Your task to perform on an android device: open the mobile data screen to see how much data has been used Image 0: 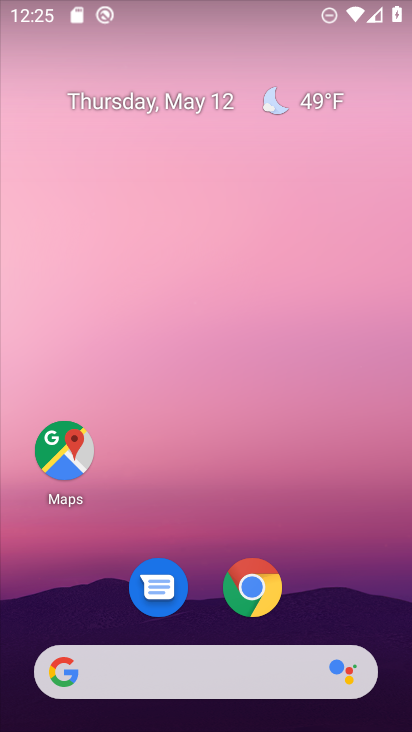
Step 0: drag from (316, 619) to (324, 296)
Your task to perform on an android device: open the mobile data screen to see how much data has been used Image 1: 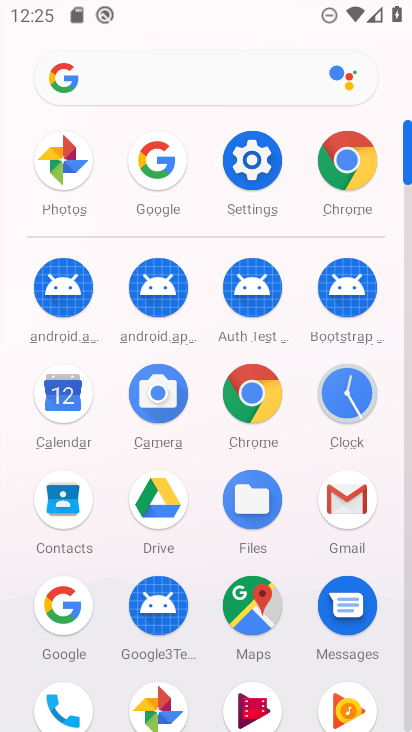
Step 1: click (244, 157)
Your task to perform on an android device: open the mobile data screen to see how much data has been used Image 2: 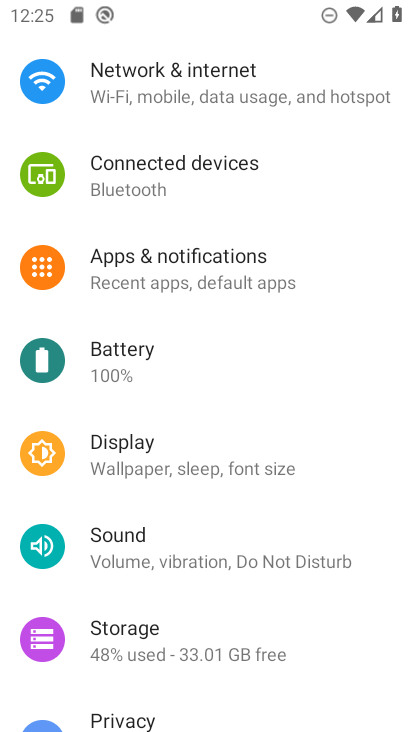
Step 2: click (180, 92)
Your task to perform on an android device: open the mobile data screen to see how much data has been used Image 3: 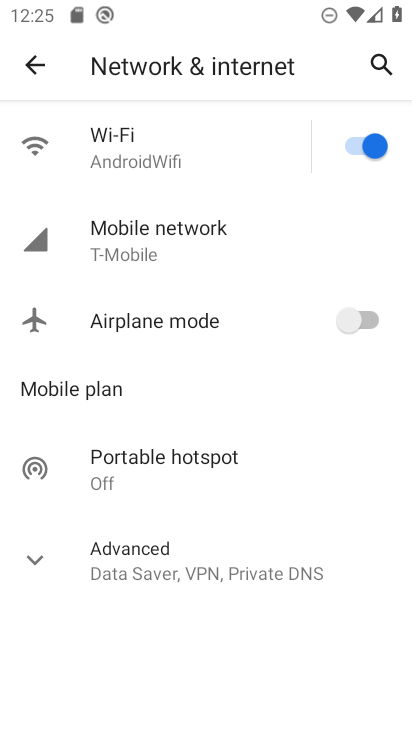
Step 3: click (139, 252)
Your task to perform on an android device: open the mobile data screen to see how much data has been used Image 4: 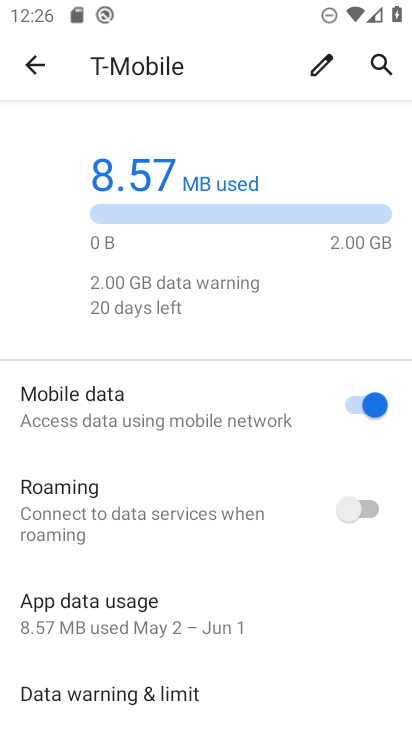
Step 4: click (177, 392)
Your task to perform on an android device: open the mobile data screen to see how much data has been used Image 5: 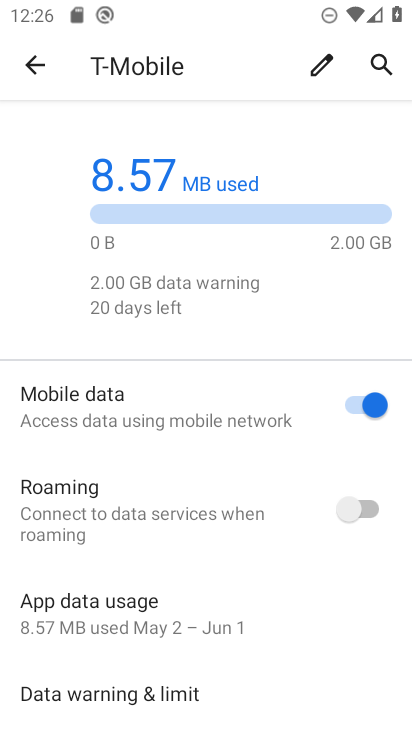
Step 5: click (108, 623)
Your task to perform on an android device: open the mobile data screen to see how much data has been used Image 6: 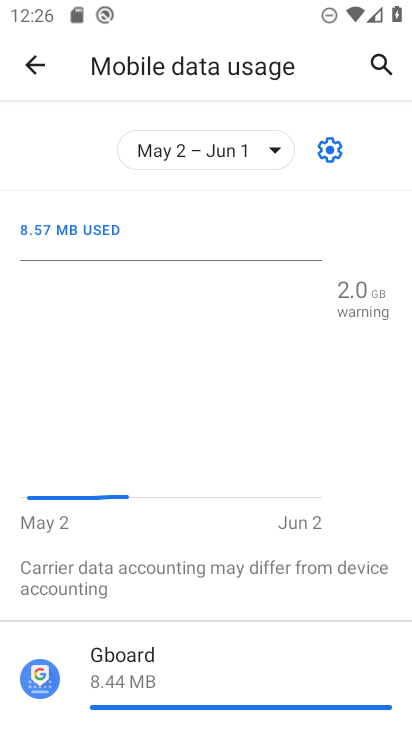
Step 6: task complete